Your task to perform on an android device: turn off data saver in the chrome app Image 0: 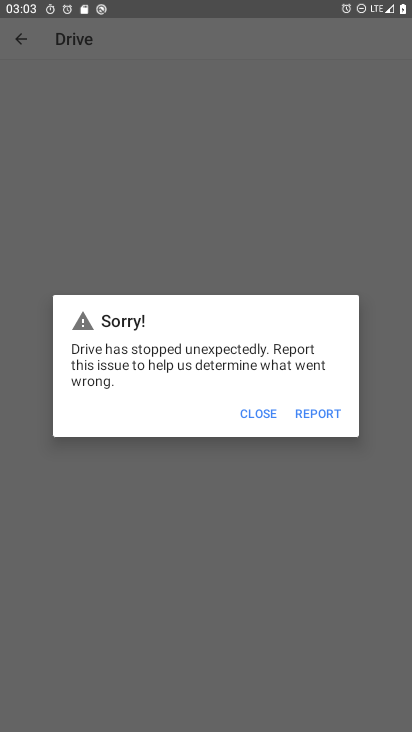
Step 0: press home button
Your task to perform on an android device: turn off data saver in the chrome app Image 1: 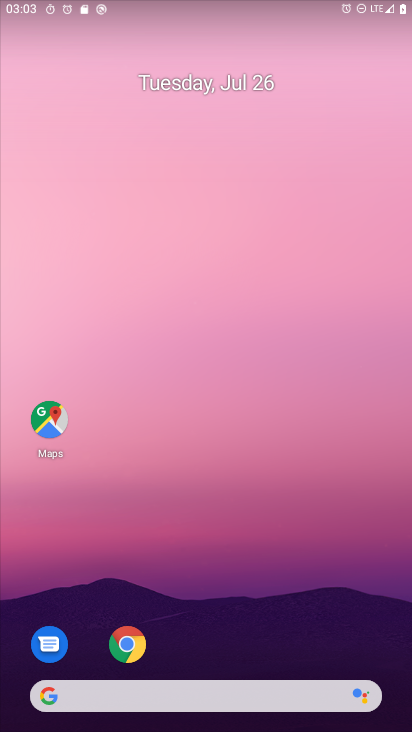
Step 1: click (127, 645)
Your task to perform on an android device: turn off data saver in the chrome app Image 2: 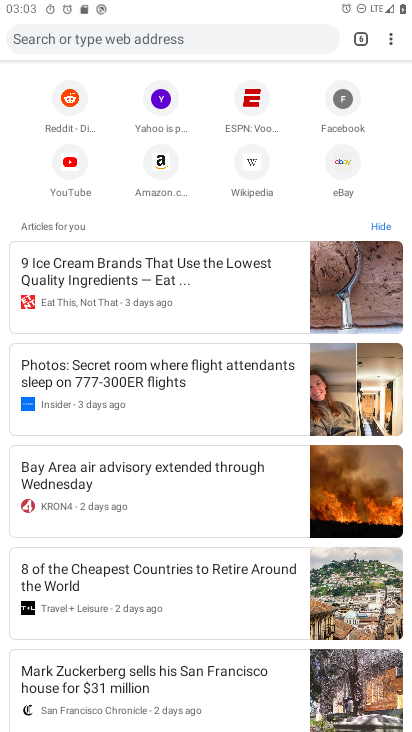
Step 2: drag from (390, 39) to (283, 326)
Your task to perform on an android device: turn off data saver in the chrome app Image 3: 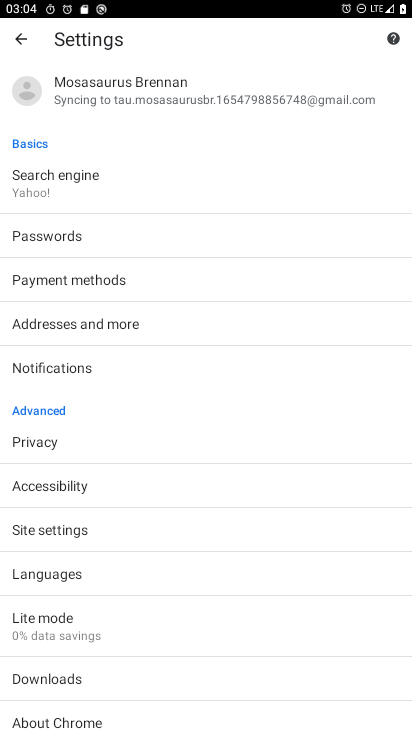
Step 3: click (72, 626)
Your task to perform on an android device: turn off data saver in the chrome app Image 4: 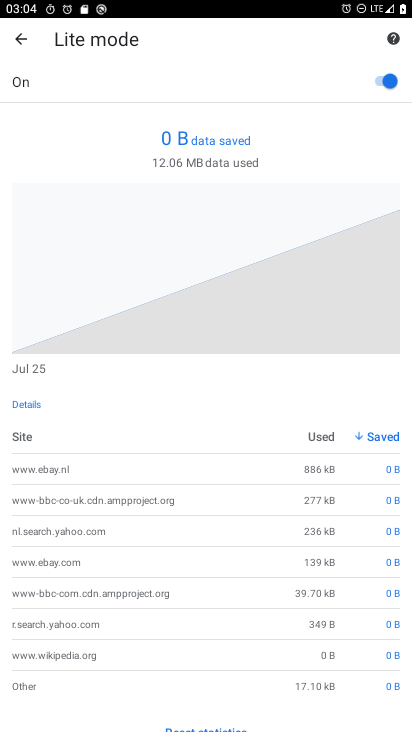
Step 4: click (386, 83)
Your task to perform on an android device: turn off data saver in the chrome app Image 5: 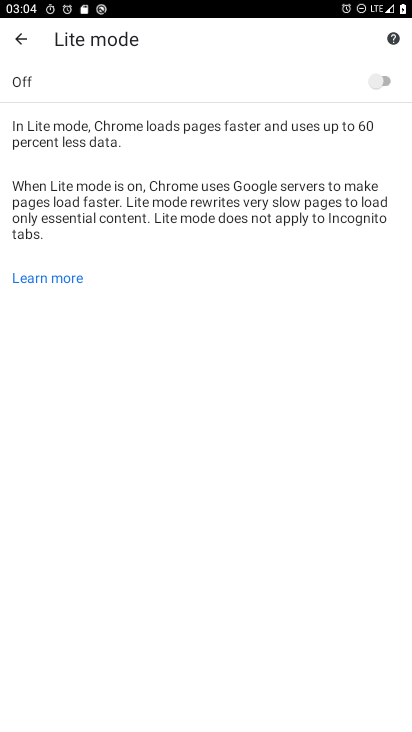
Step 5: task complete